Your task to perform on an android device: toggle javascript in the chrome app Image 0: 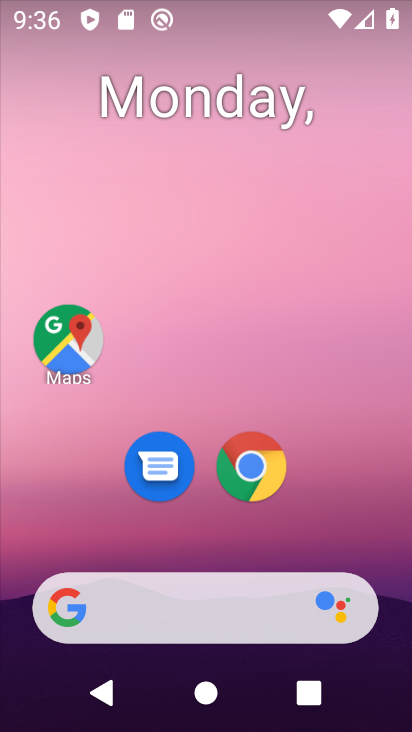
Step 0: press home button
Your task to perform on an android device: toggle javascript in the chrome app Image 1: 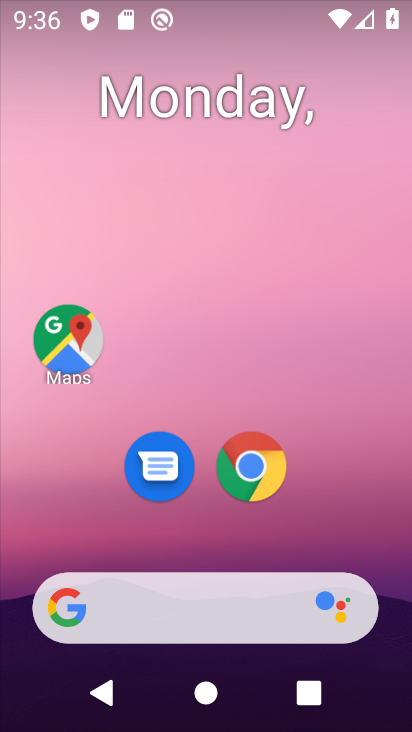
Step 1: drag from (319, 543) to (291, 2)
Your task to perform on an android device: toggle javascript in the chrome app Image 2: 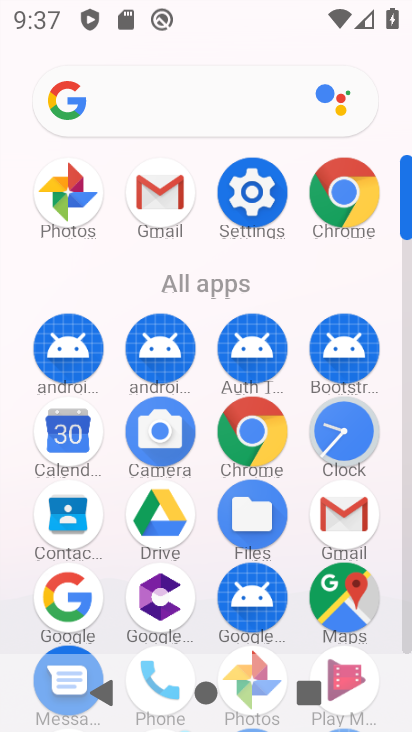
Step 2: click (407, 546)
Your task to perform on an android device: toggle javascript in the chrome app Image 3: 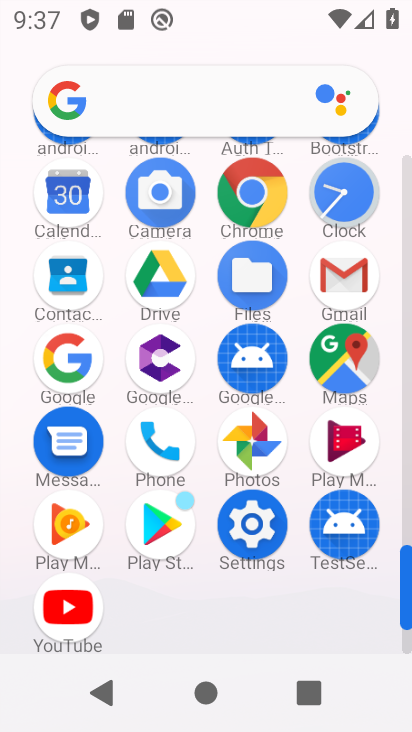
Step 3: click (407, 546)
Your task to perform on an android device: toggle javascript in the chrome app Image 4: 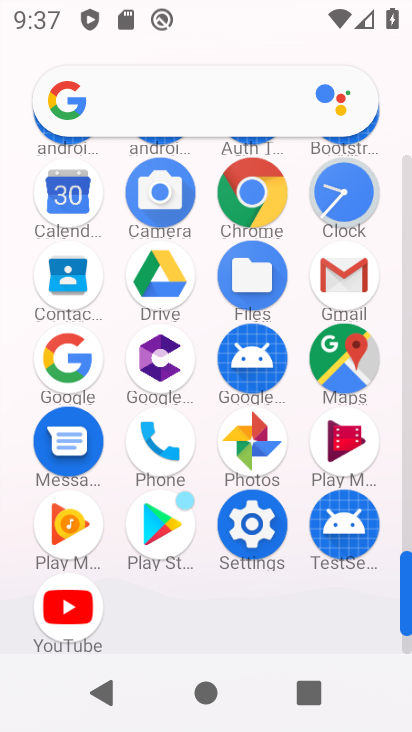
Step 4: drag from (407, 568) to (400, 729)
Your task to perform on an android device: toggle javascript in the chrome app Image 5: 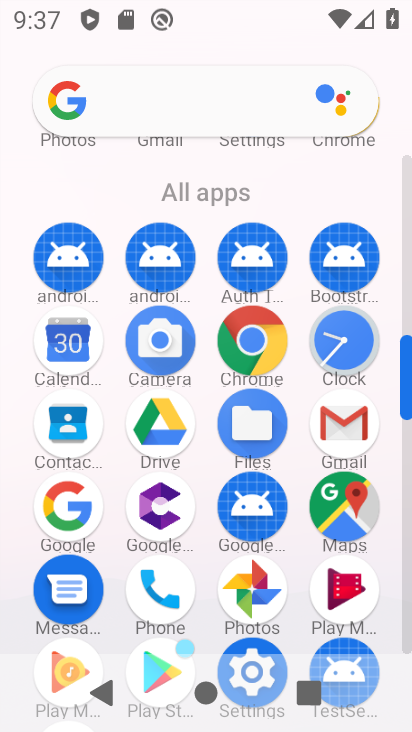
Step 5: click (406, 646)
Your task to perform on an android device: toggle javascript in the chrome app Image 6: 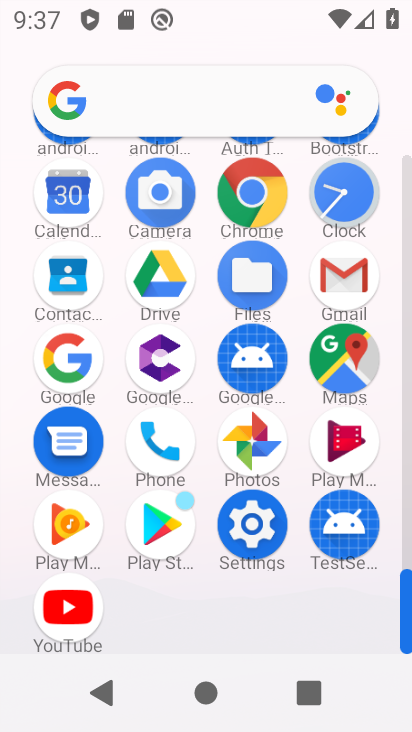
Step 6: click (243, 202)
Your task to perform on an android device: toggle javascript in the chrome app Image 7: 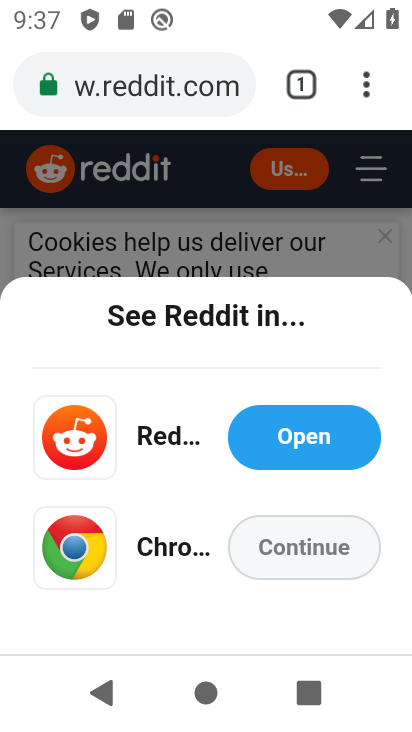
Step 7: drag from (370, 63) to (135, 507)
Your task to perform on an android device: toggle javascript in the chrome app Image 8: 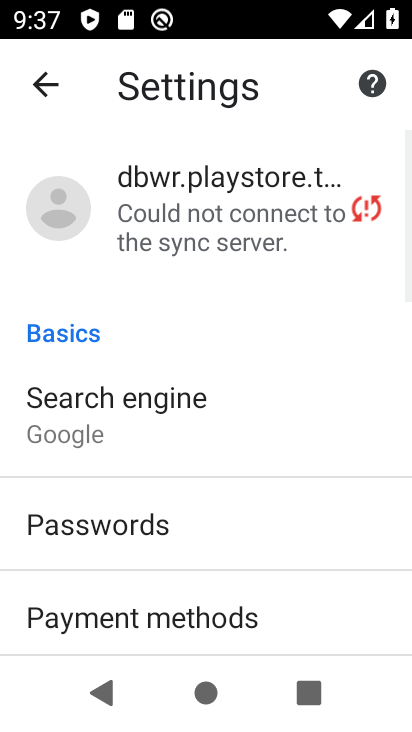
Step 8: drag from (283, 533) to (281, 342)
Your task to perform on an android device: toggle javascript in the chrome app Image 9: 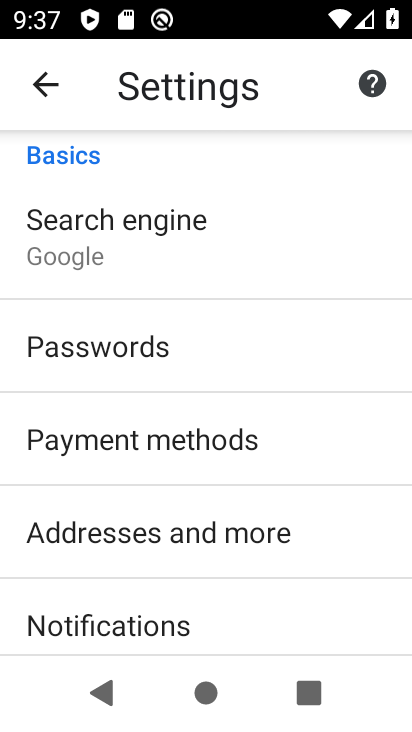
Step 9: drag from (278, 604) to (269, 355)
Your task to perform on an android device: toggle javascript in the chrome app Image 10: 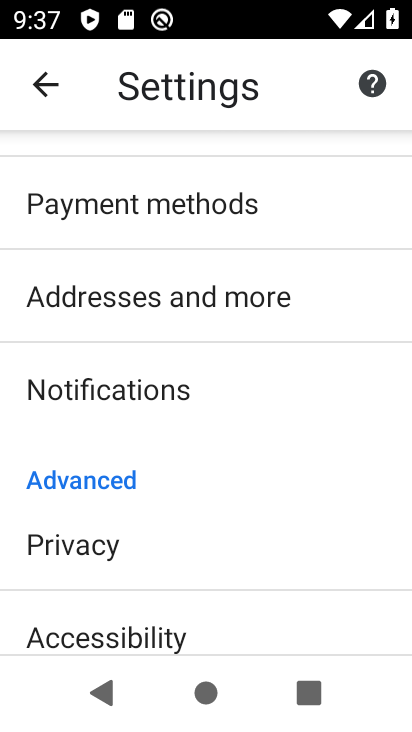
Step 10: drag from (78, 612) to (188, 16)
Your task to perform on an android device: toggle javascript in the chrome app Image 11: 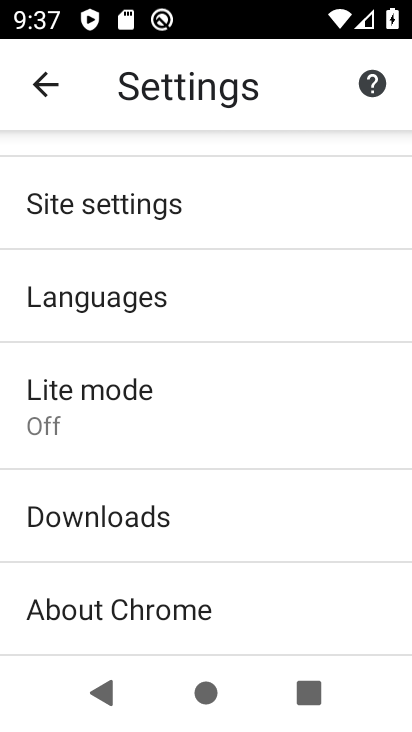
Step 11: click (151, 225)
Your task to perform on an android device: toggle javascript in the chrome app Image 12: 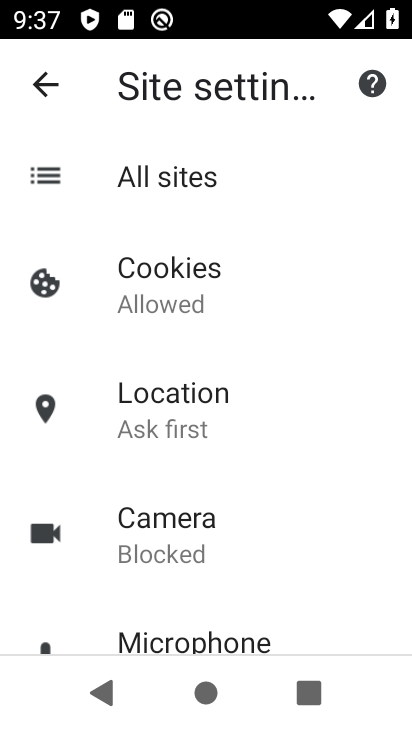
Step 12: drag from (292, 593) to (287, 361)
Your task to perform on an android device: toggle javascript in the chrome app Image 13: 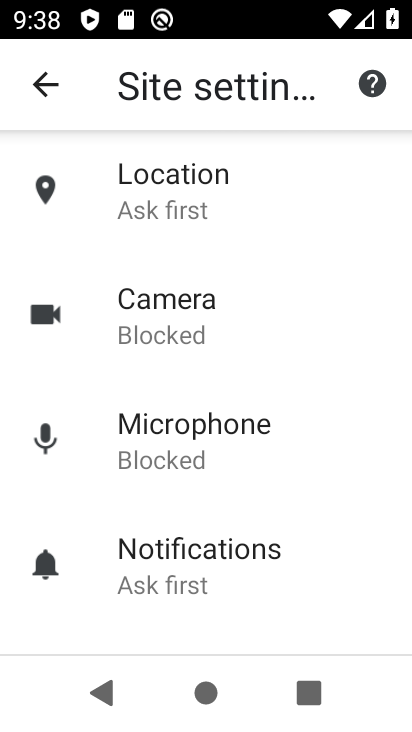
Step 13: drag from (206, 586) to (228, 299)
Your task to perform on an android device: toggle javascript in the chrome app Image 14: 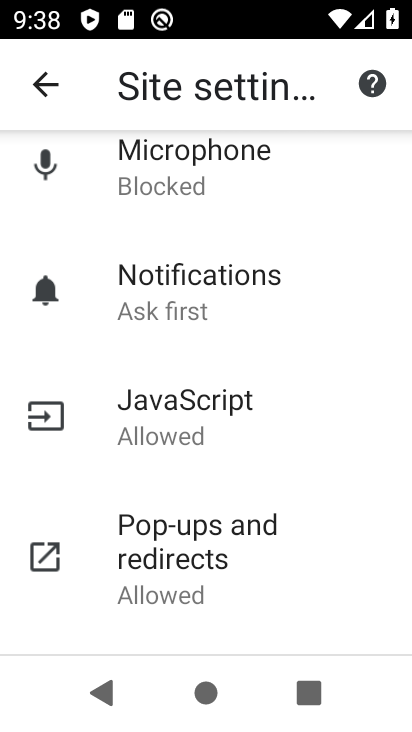
Step 14: click (108, 415)
Your task to perform on an android device: toggle javascript in the chrome app Image 15: 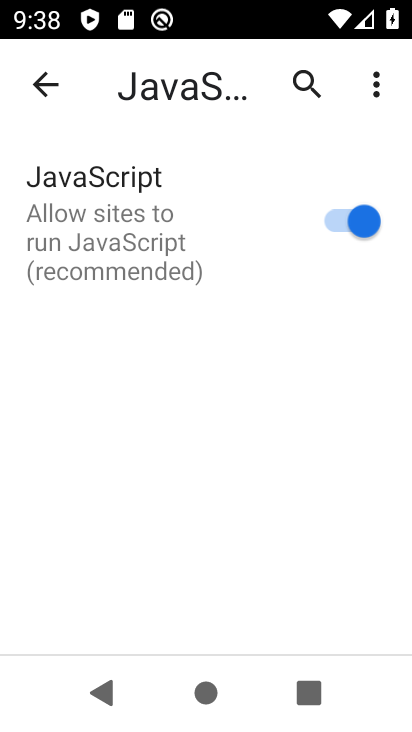
Step 15: click (251, 230)
Your task to perform on an android device: toggle javascript in the chrome app Image 16: 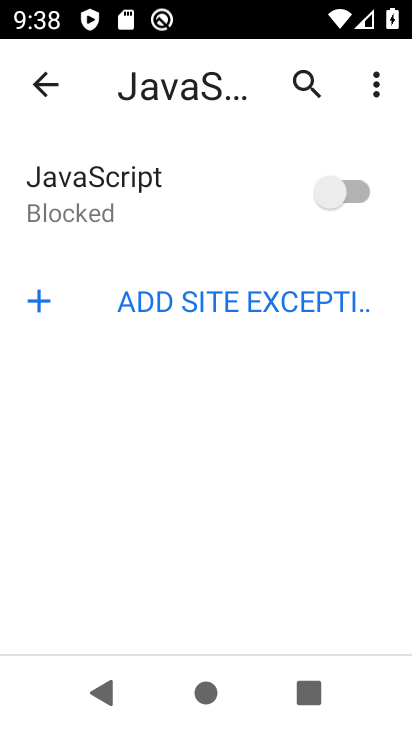
Step 16: task complete